Your task to perform on an android device: move an email to a new category in the gmail app Image 0: 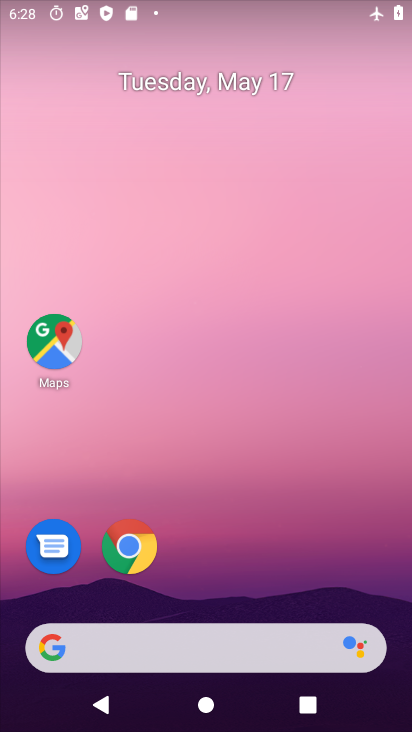
Step 0: drag from (215, 587) to (173, 139)
Your task to perform on an android device: move an email to a new category in the gmail app Image 1: 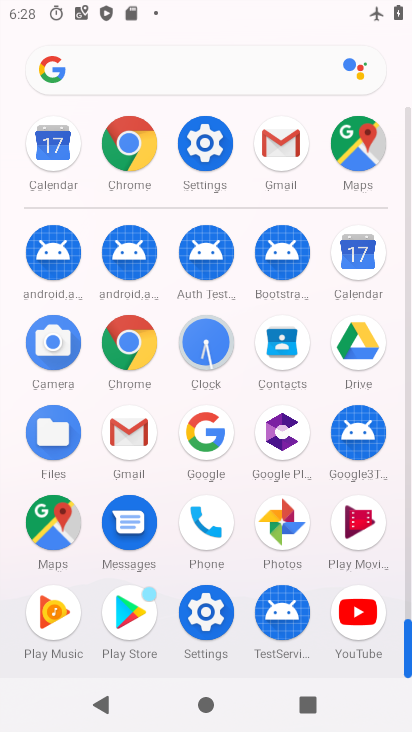
Step 1: click (283, 156)
Your task to perform on an android device: move an email to a new category in the gmail app Image 2: 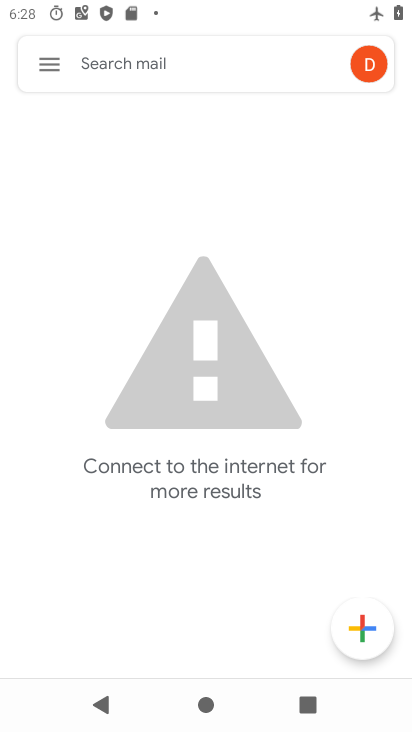
Step 2: click (54, 65)
Your task to perform on an android device: move an email to a new category in the gmail app Image 3: 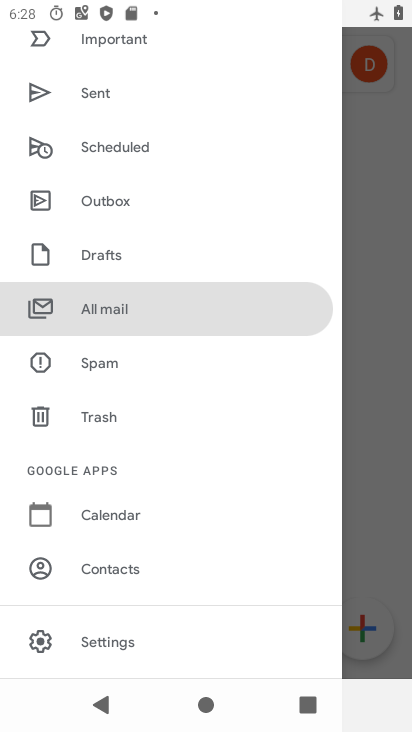
Step 3: click (117, 324)
Your task to perform on an android device: move an email to a new category in the gmail app Image 4: 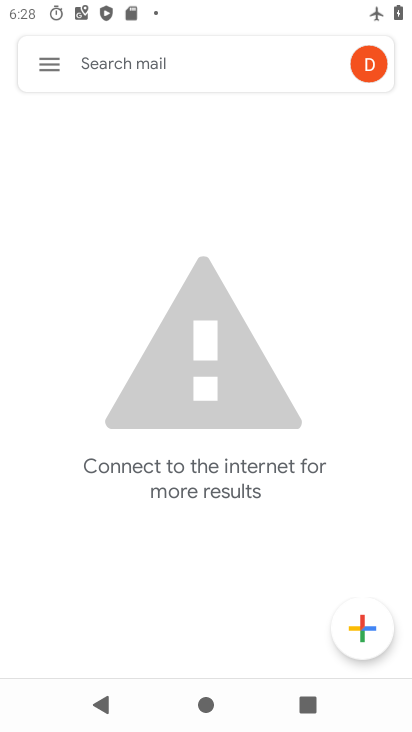
Step 4: task complete